Your task to perform on an android device: Add macbook pro 13 inch to the cart on amazon.com, then select checkout. Image 0: 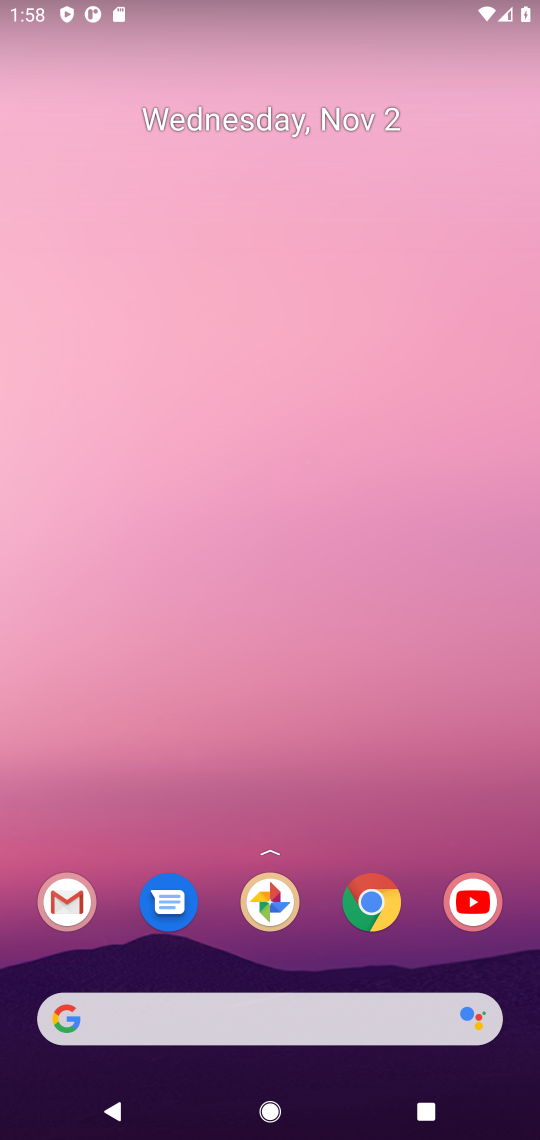
Step 0: click (267, 1017)
Your task to perform on an android device: Add macbook pro 13 inch to the cart on amazon.com, then select checkout. Image 1: 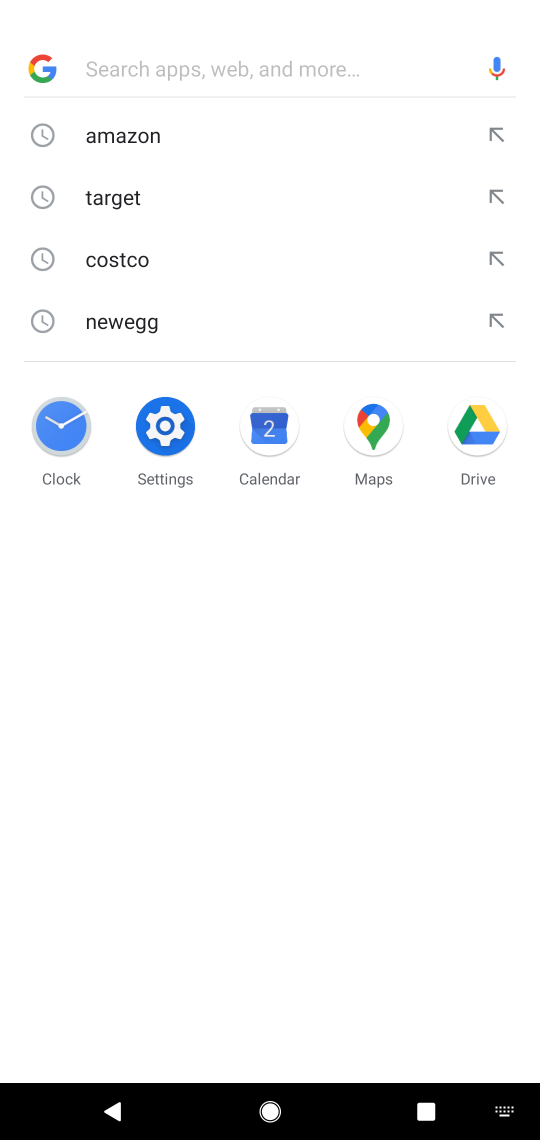
Step 1: click (134, 134)
Your task to perform on an android device: Add macbook pro 13 inch to the cart on amazon.com, then select checkout. Image 2: 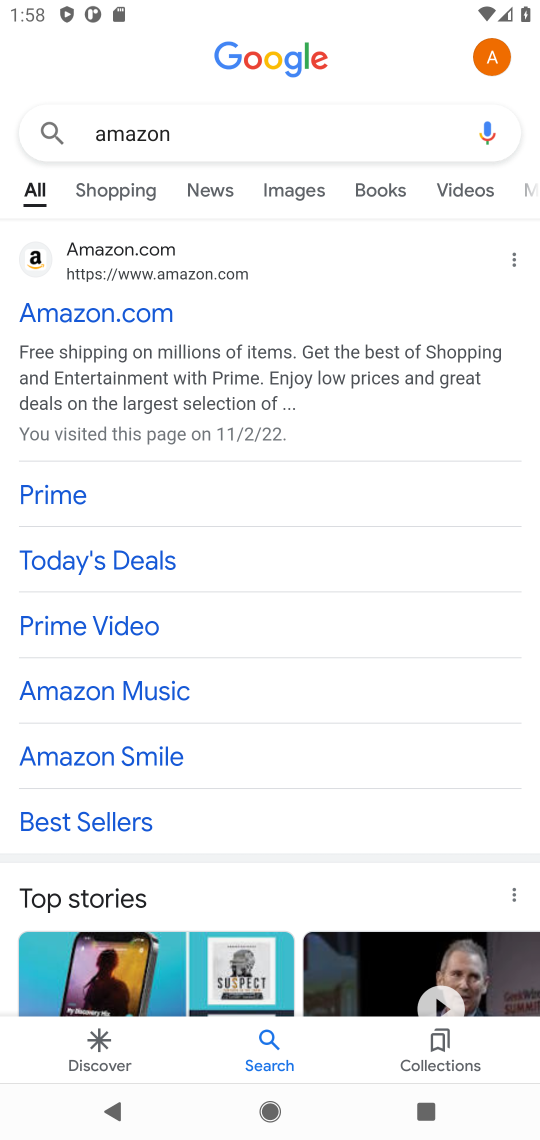
Step 2: click (93, 304)
Your task to perform on an android device: Add macbook pro 13 inch to the cart on amazon.com, then select checkout. Image 3: 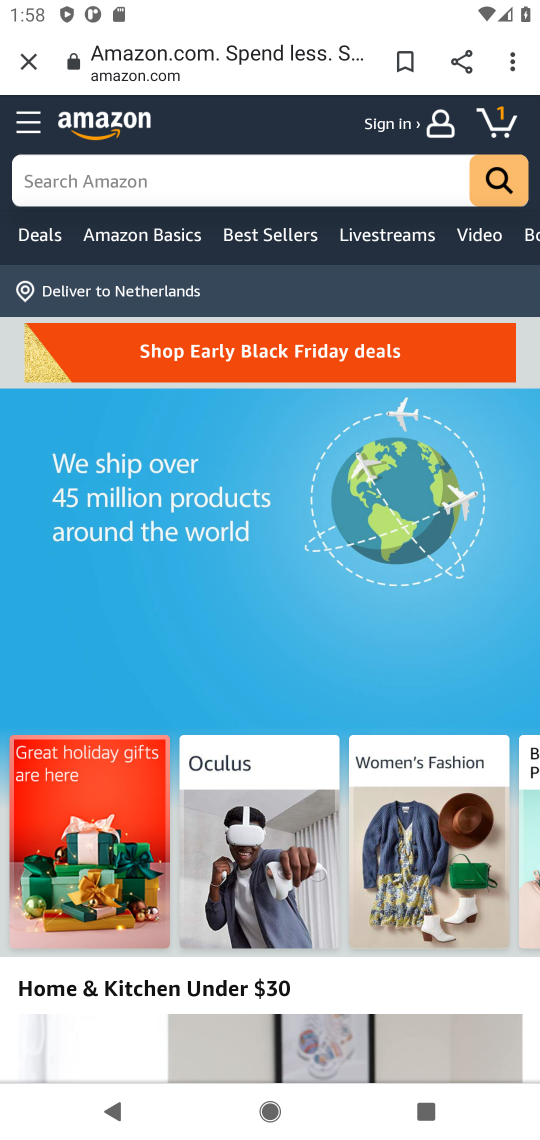
Step 3: click (210, 185)
Your task to perform on an android device: Add macbook pro 13 inch to the cart on amazon.com, then select checkout. Image 4: 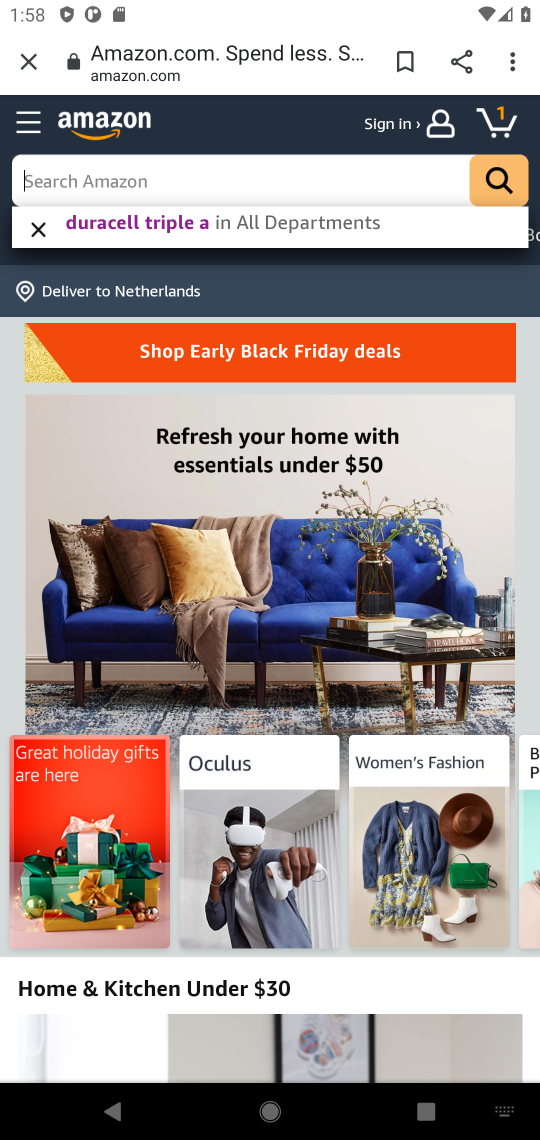
Step 4: type "macbook pro 13 inch"
Your task to perform on an android device: Add macbook pro 13 inch to the cart on amazon.com, then select checkout. Image 5: 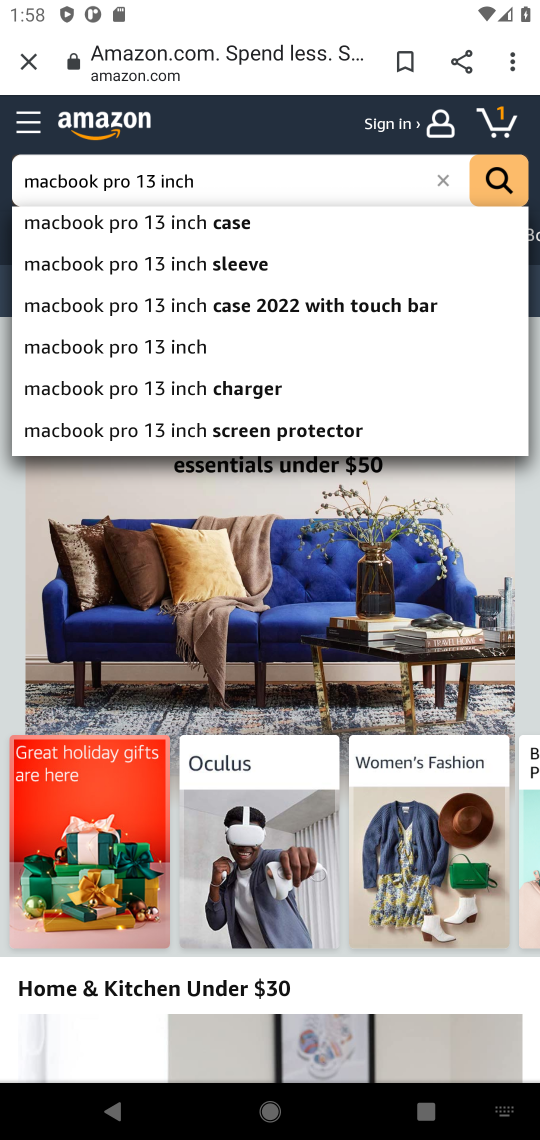
Step 5: click (195, 340)
Your task to perform on an android device: Add macbook pro 13 inch to the cart on amazon.com, then select checkout. Image 6: 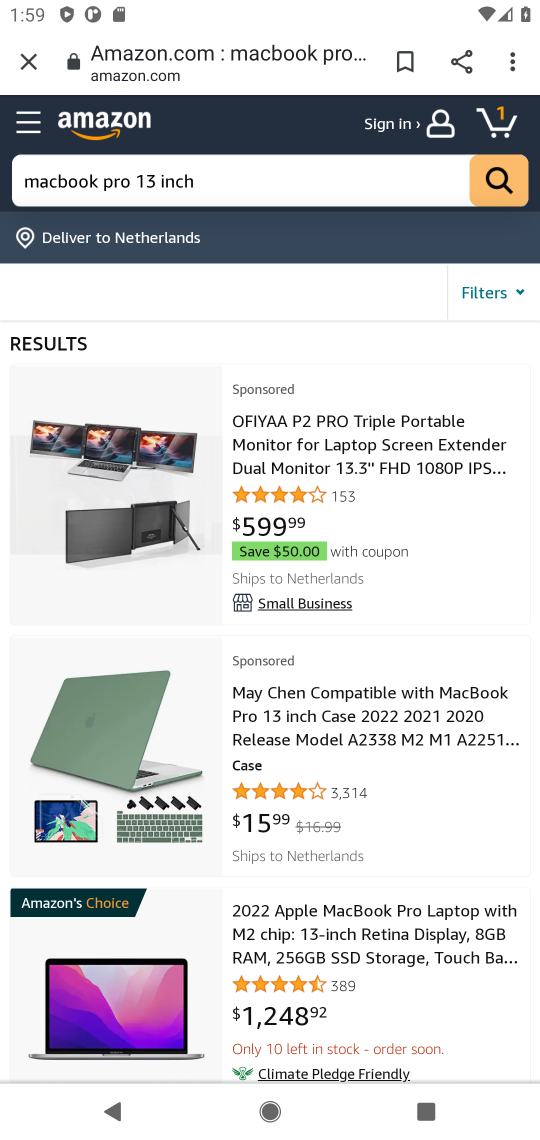
Step 6: click (315, 441)
Your task to perform on an android device: Add macbook pro 13 inch to the cart on amazon.com, then select checkout. Image 7: 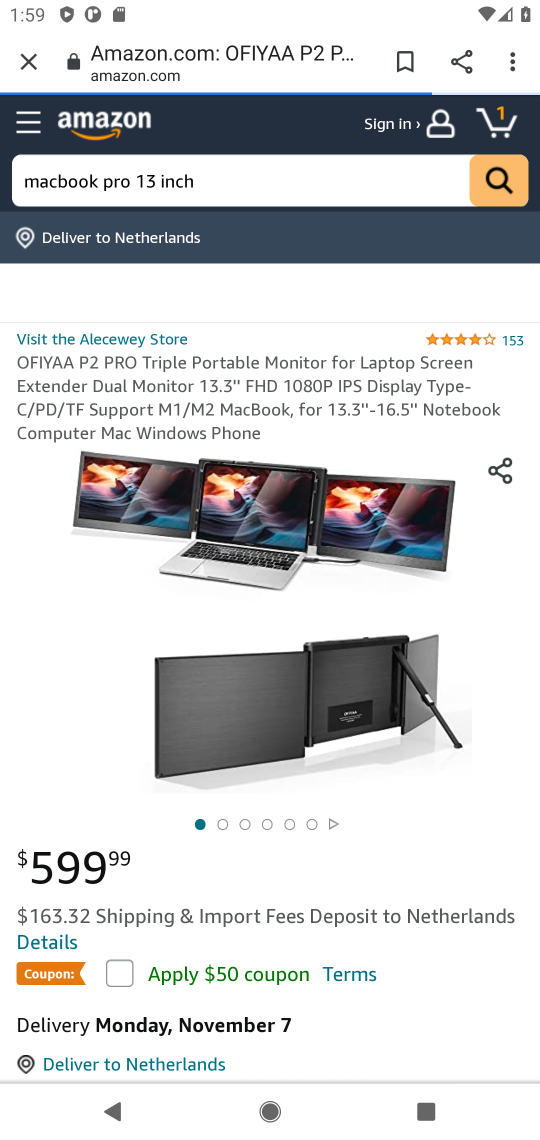
Step 7: drag from (426, 798) to (377, 417)
Your task to perform on an android device: Add macbook pro 13 inch to the cart on amazon.com, then select checkout. Image 8: 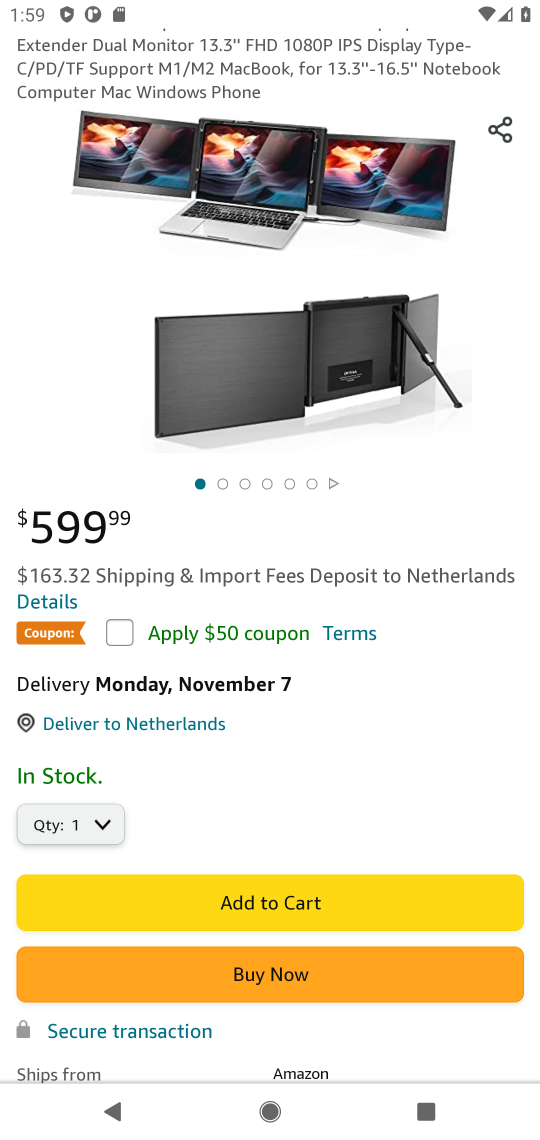
Step 8: drag from (391, 665) to (309, 197)
Your task to perform on an android device: Add macbook pro 13 inch to the cart on amazon.com, then select checkout. Image 9: 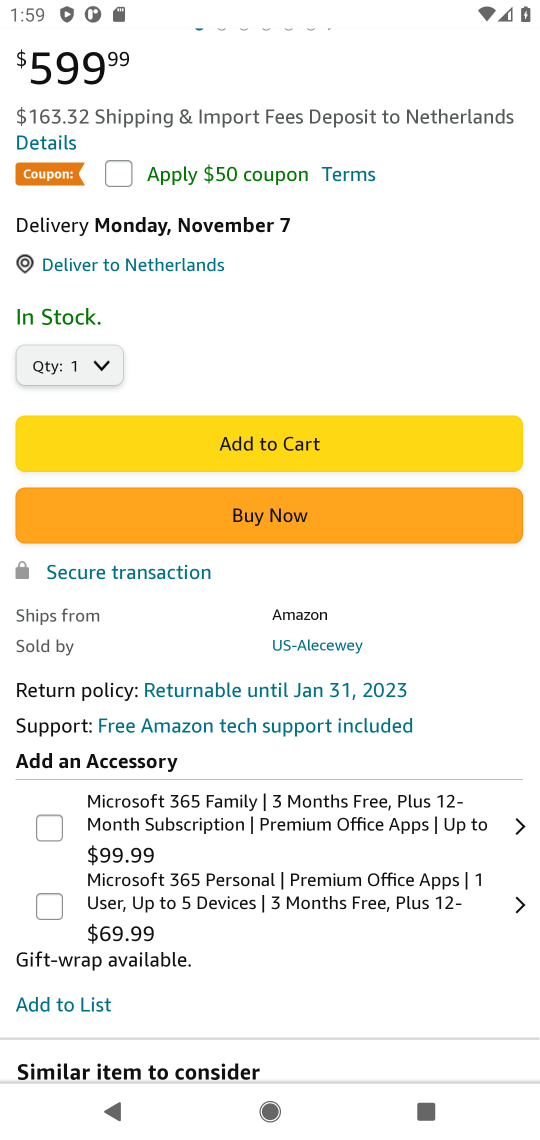
Step 9: click (256, 442)
Your task to perform on an android device: Add macbook pro 13 inch to the cart on amazon.com, then select checkout. Image 10: 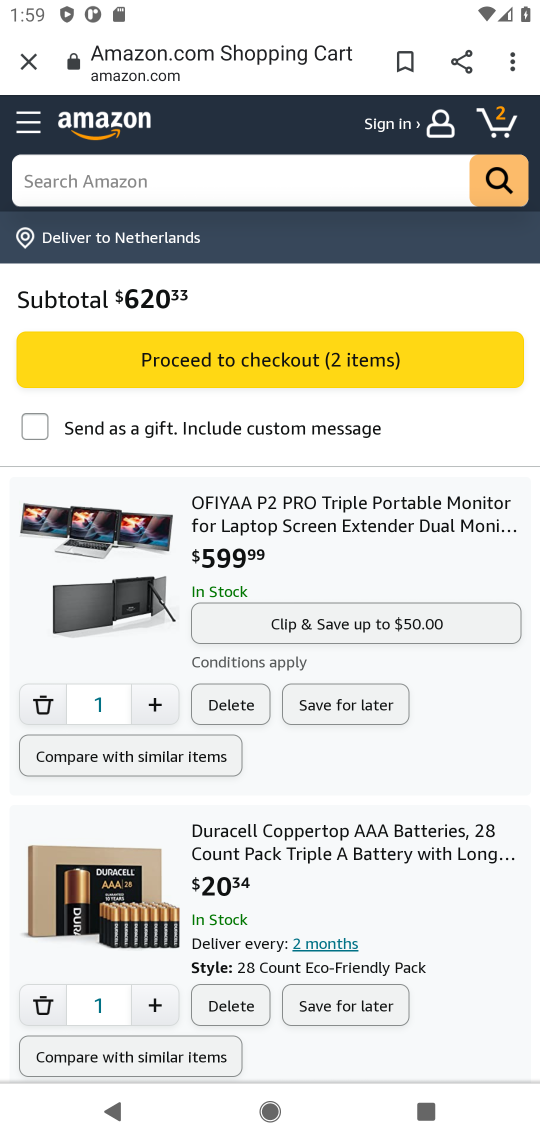
Step 10: click (311, 359)
Your task to perform on an android device: Add macbook pro 13 inch to the cart on amazon.com, then select checkout. Image 11: 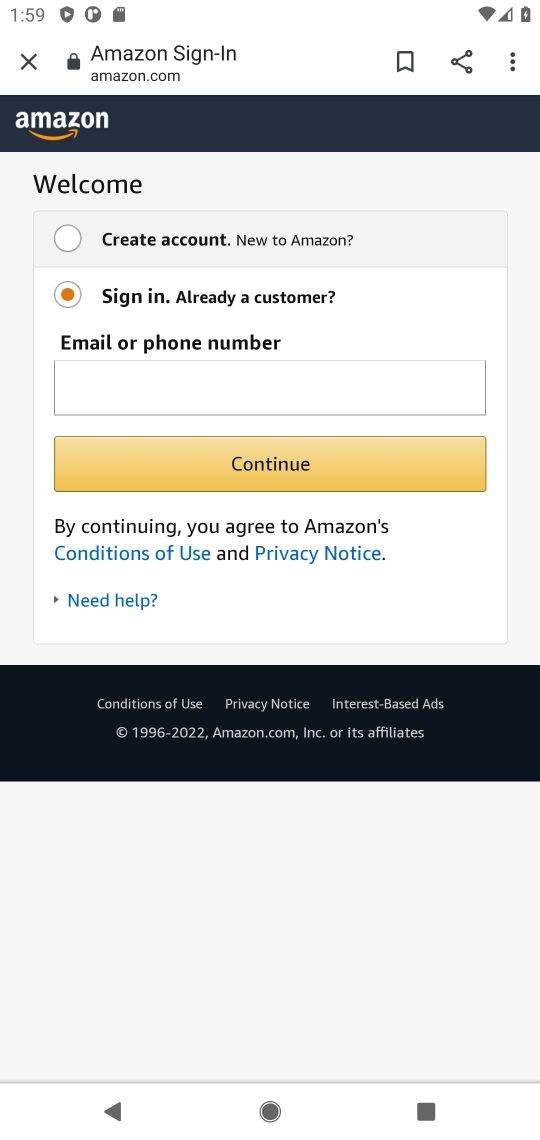
Step 11: task complete